Your task to perform on an android device: Open calendar and show me the third week of next month Image 0: 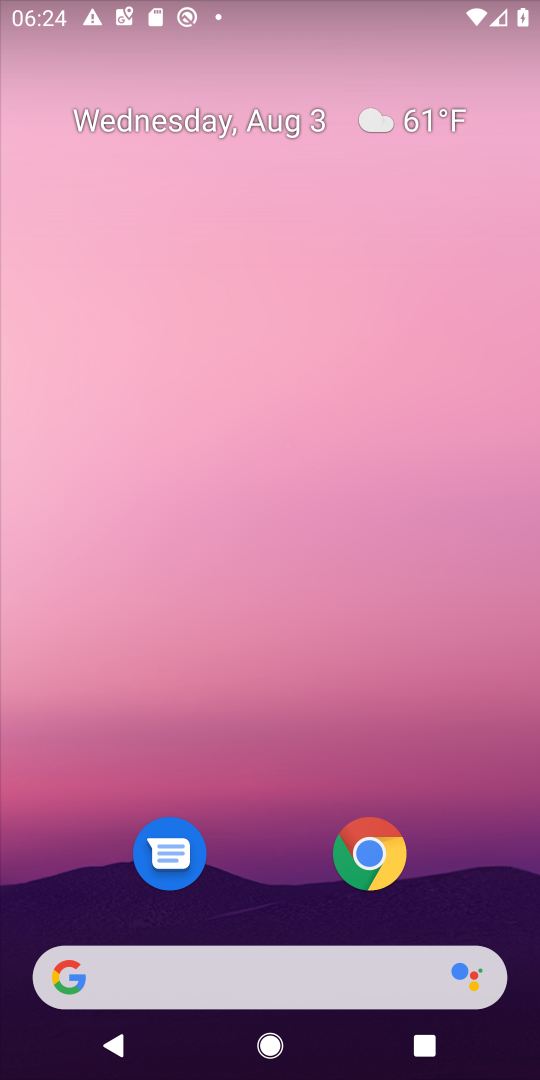
Step 0: drag from (258, 924) to (246, 87)
Your task to perform on an android device: Open calendar and show me the third week of next month Image 1: 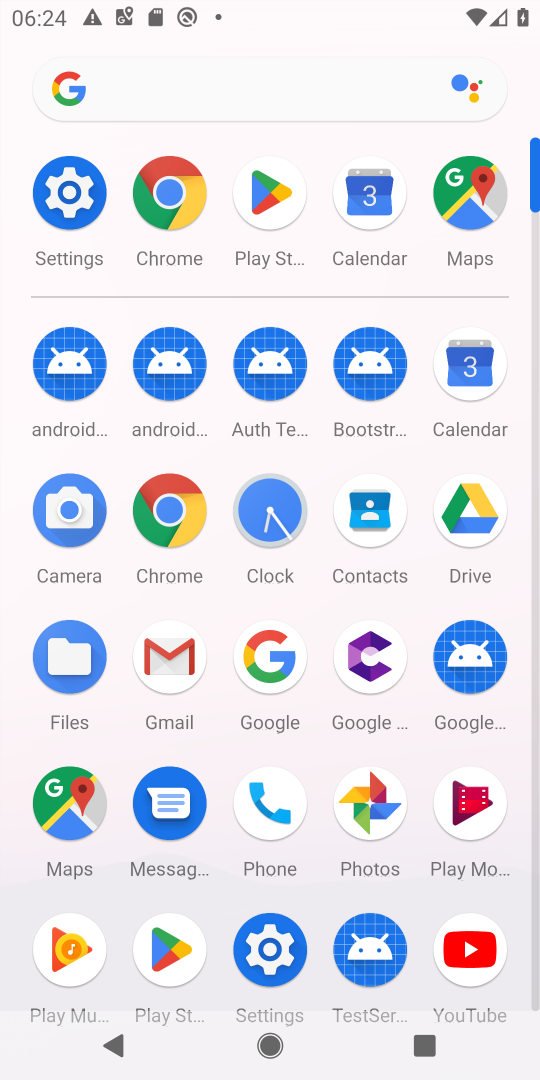
Step 1: click (467, 368)
Your task to perform on an android device: Open calendar and show me the third week of next month Image 2: 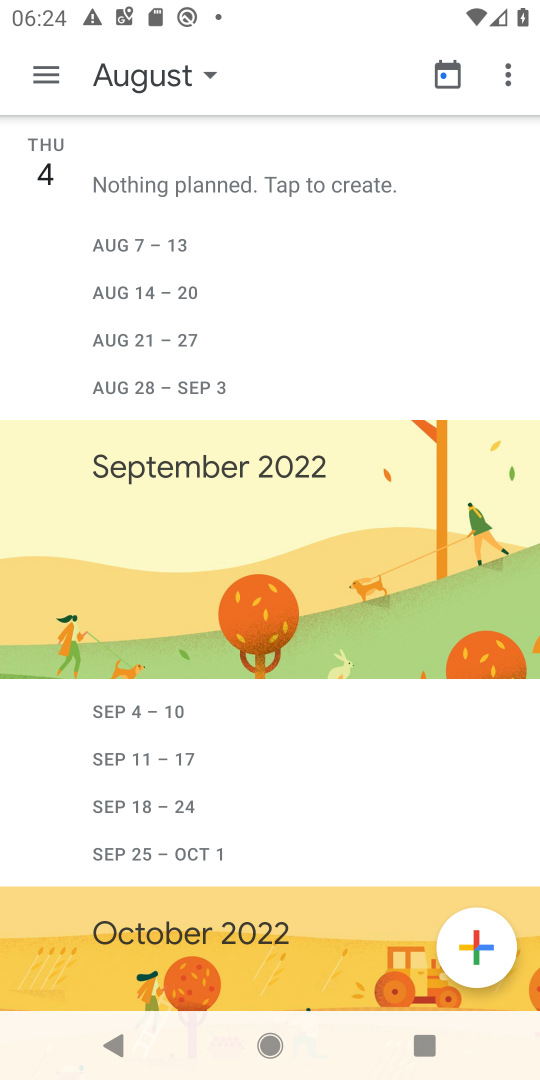
Step 2: click (211, 70)
Your task to perform on an android device: Open calendar and show me the third week of next month Image 3: 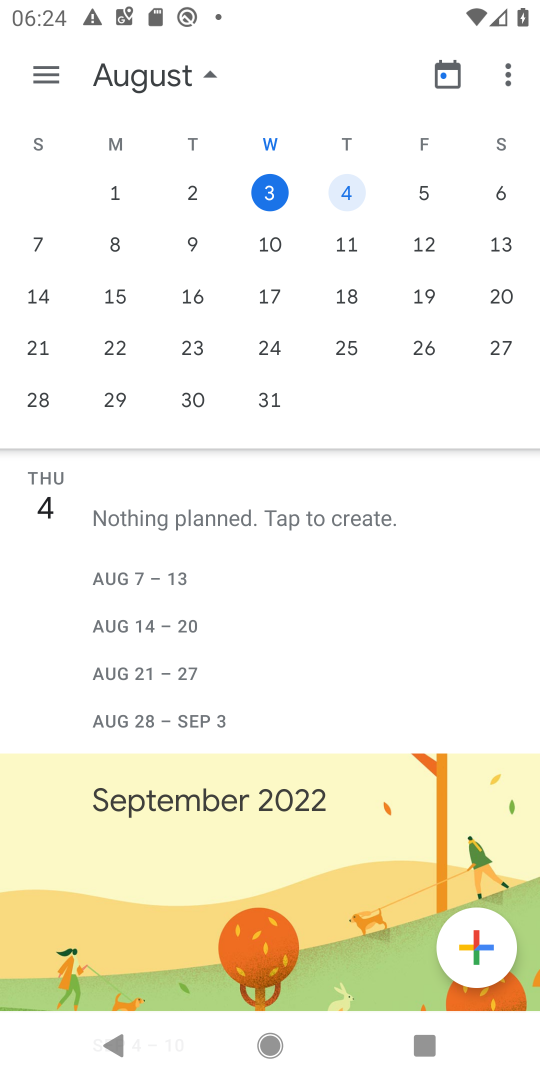
Step 3: drag from (436, 280) to (162, 263)
Your task to perform on an android device: Open calendar and show me the third week of next month Image 4: 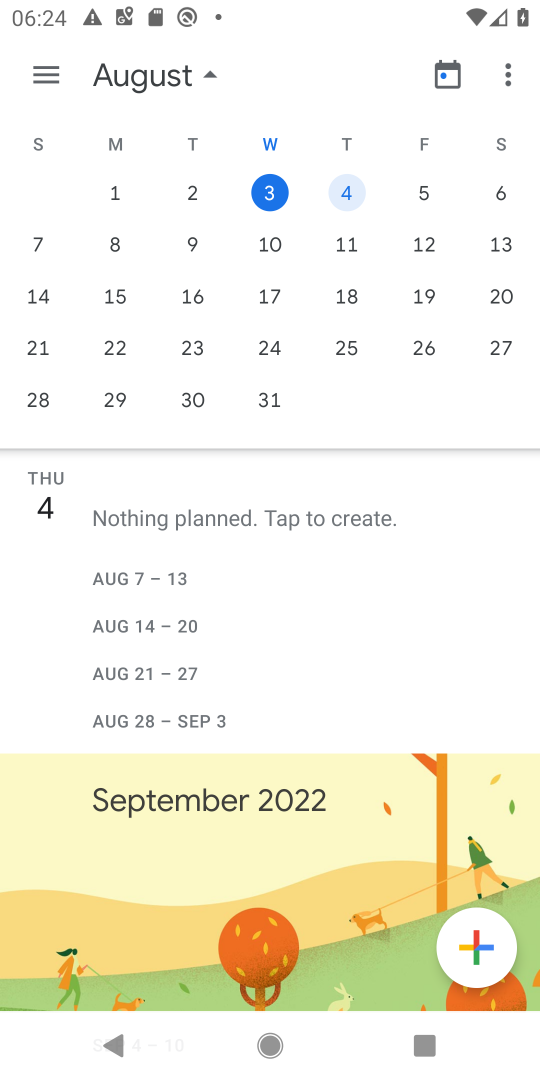
Step 4: drag from (481, 276) to (47, 311)
Your task to perform on an android device: Open calendar and show me the third week of next month Image 5: 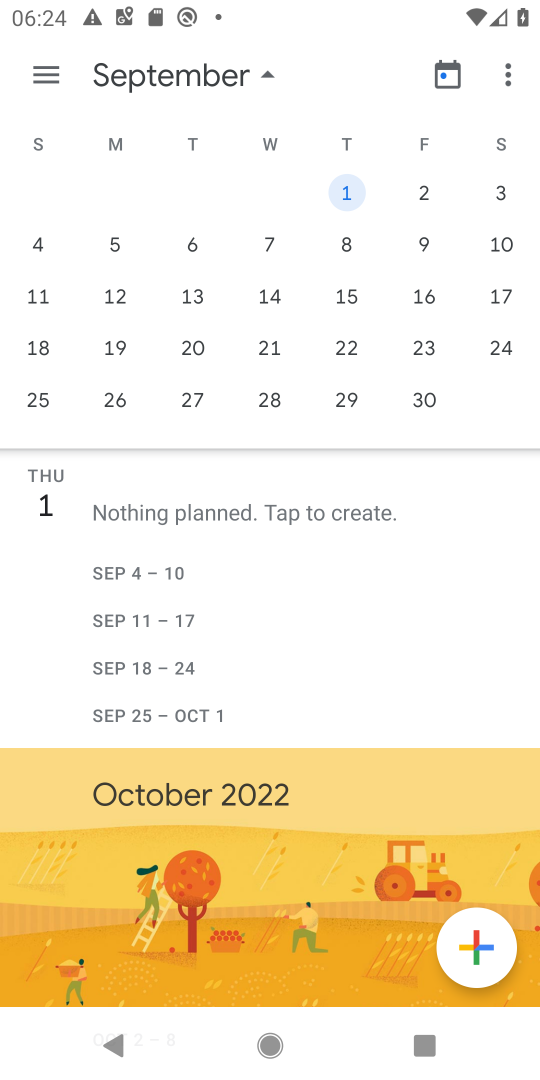
Step 5: drag from (441, 347) to (388, 341)
Your task to perform on an android device: Open calendar and show me the third week of next month Image 6: 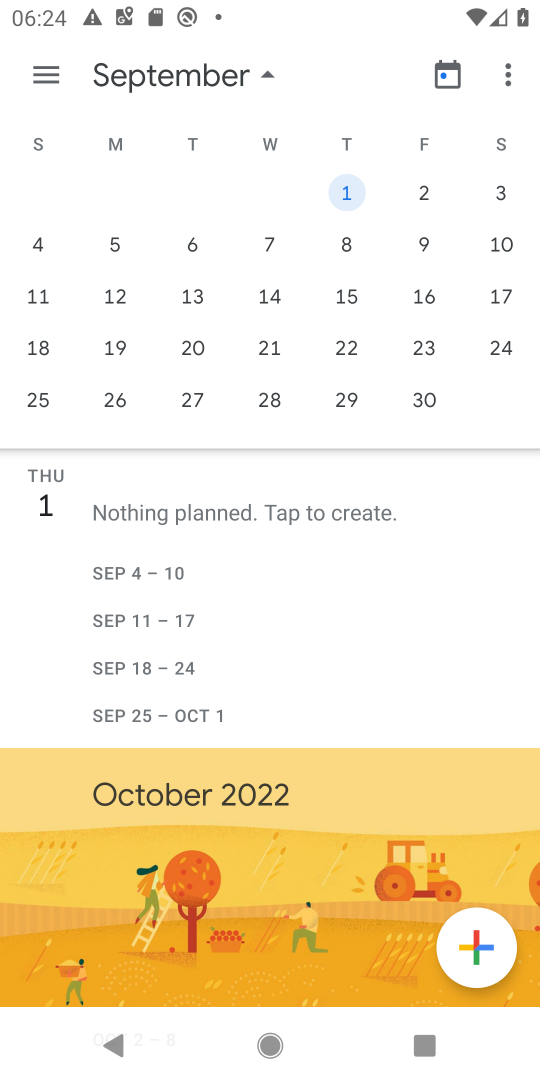
Step 6: click (114, 333)
Your task to perform on an android device: Open calendar and show me the third week of next month Image 7: 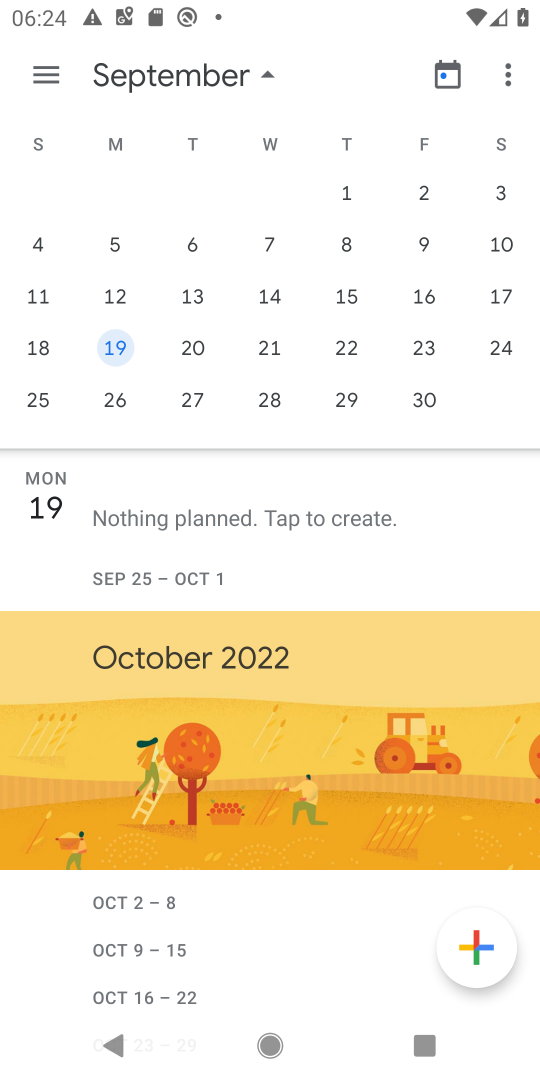
Step 7: click (48, 73)
Your task to perform on an android device: Open calendar and show me the third week of next month Image 8: 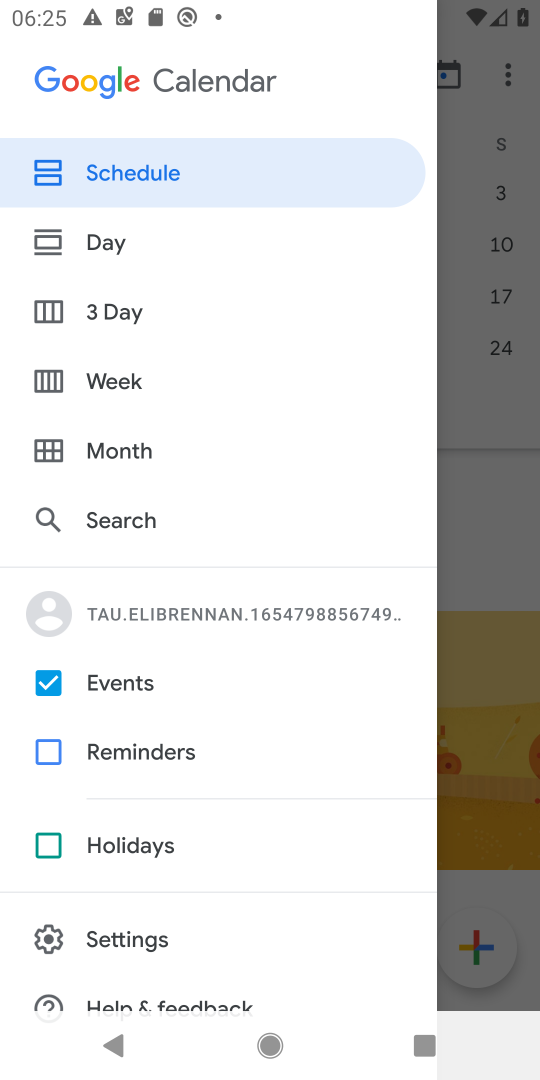
Step 8: click (130, 383)
Your task to perform on an android device: Open calendar and show me the third week of next month Image 9: 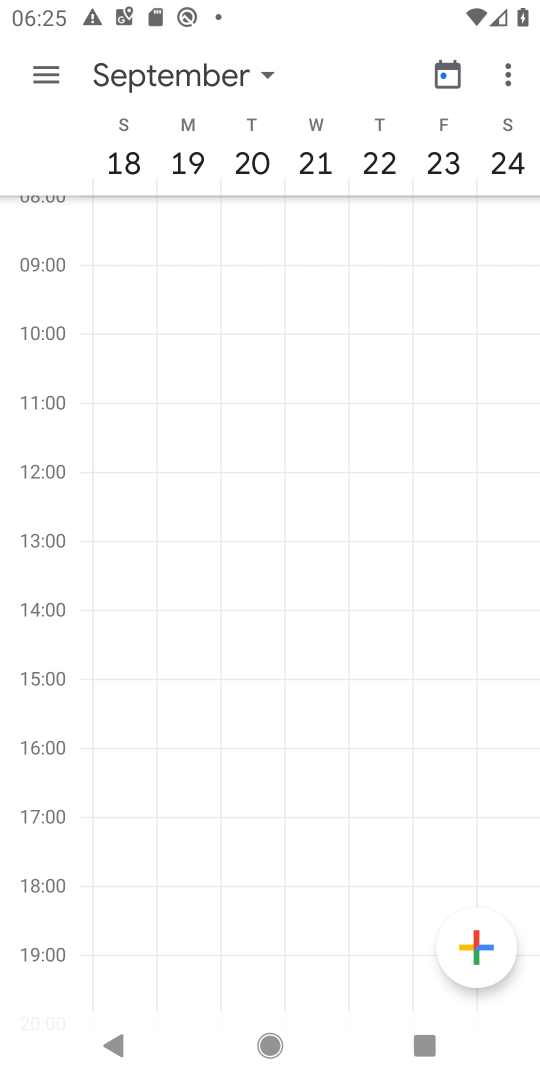
Step 9: task complete